Your task to perform on an android device: change notification settings in the gmail app Image 0: 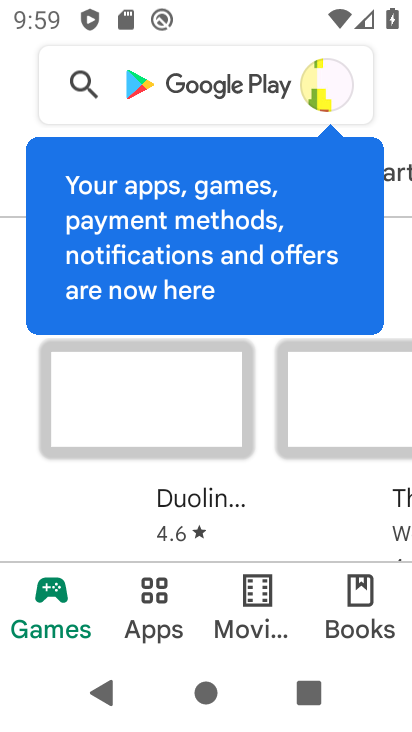
Step 0: press back button
Your task to perform on an android device: change notification settings in the gmail app Image 1: 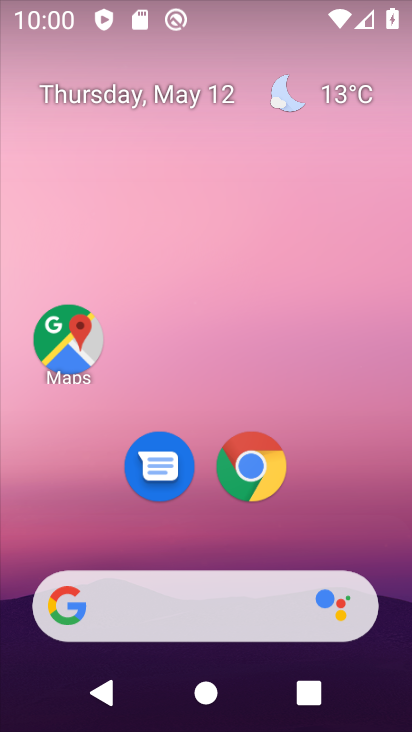
Step 1: drag from (202, 534) to (215, 102)
Your task to perform on an android device: change notification settings in the gmail app Image 2: 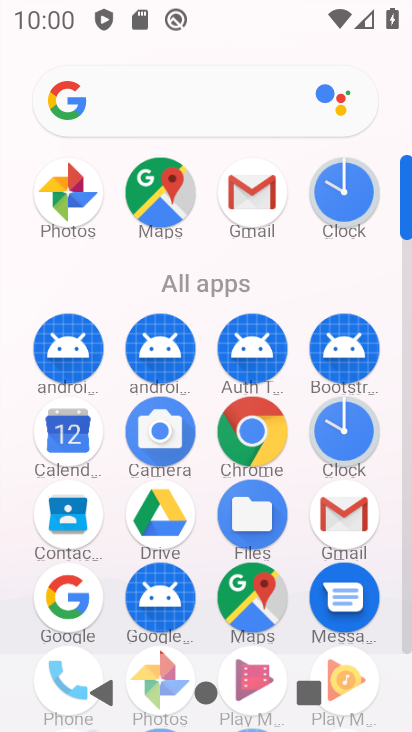
Step 2: click (247, 205)
Your task to perform on an android device: change notification settings in the gmail app Image 3: 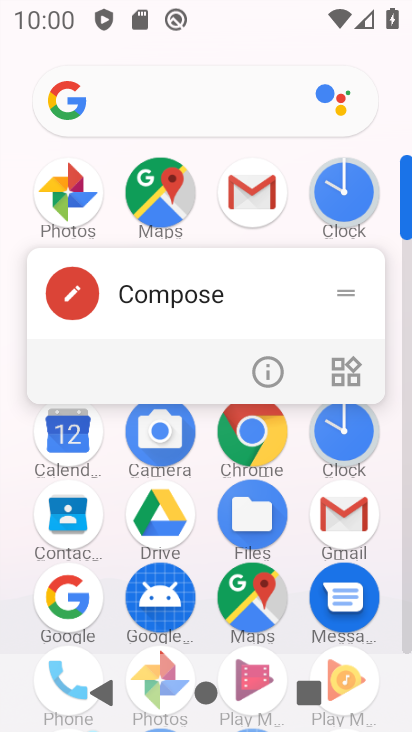
Step 3: click (257, 369)
Your task to perform on an android device: change notification settings in the gmail app Image 4: 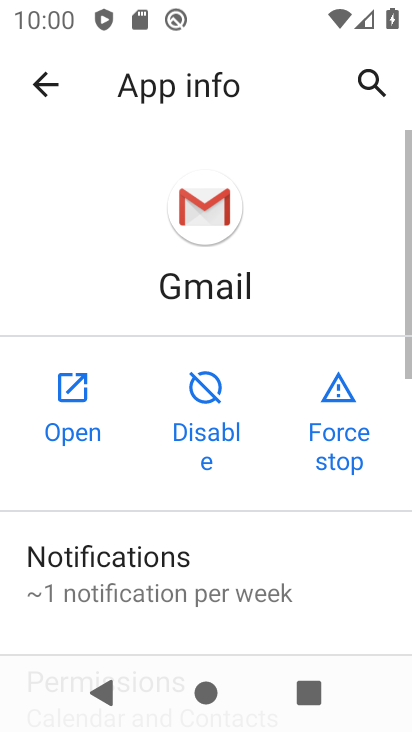
Step 4: drag from (193, 583) to (248, 200)
Your task to perform on an android device: change notification settings in the gmail app Image 5: 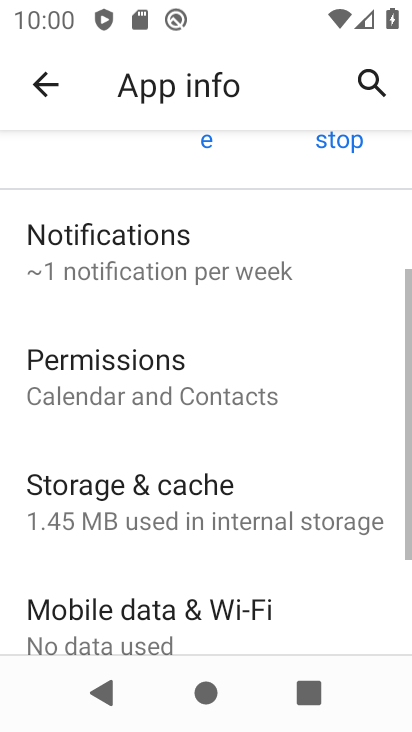
Step 5: click (189, 242)
Your task to perform on an android device: change notification settings in the gmail app Image 6: 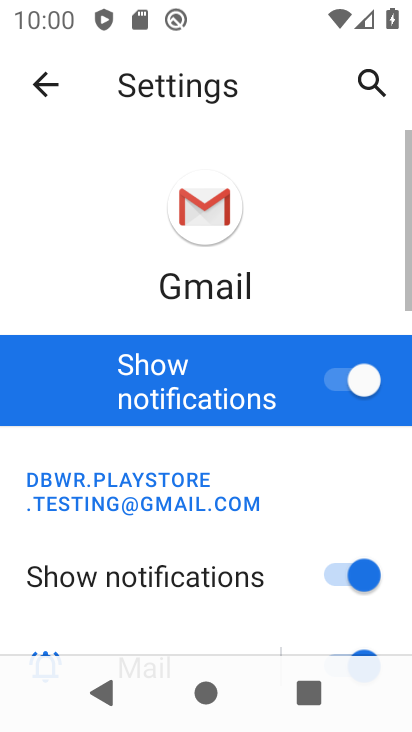
Step 6: drag from (188, 533) to (233, 203)
Your task to perform on an android device: change notification settings in the gmail app Image 7: 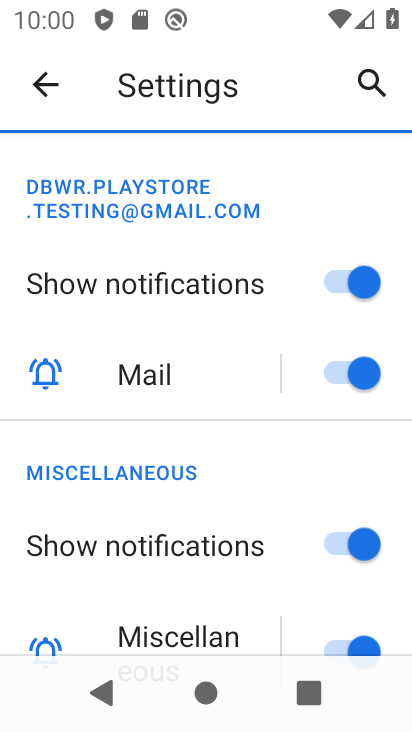
Step 7: click (350, 282)
Your task to perform on an android device: change notification settings in the gmail app Image 8: 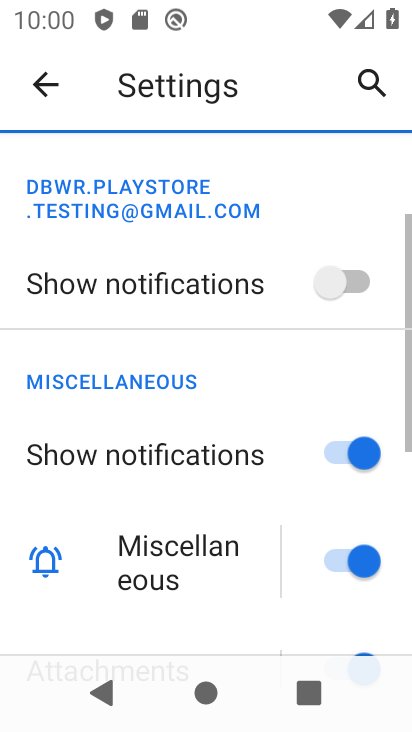
Step 8: task complete